Your task to perform on an android device: Open settings Image 0: 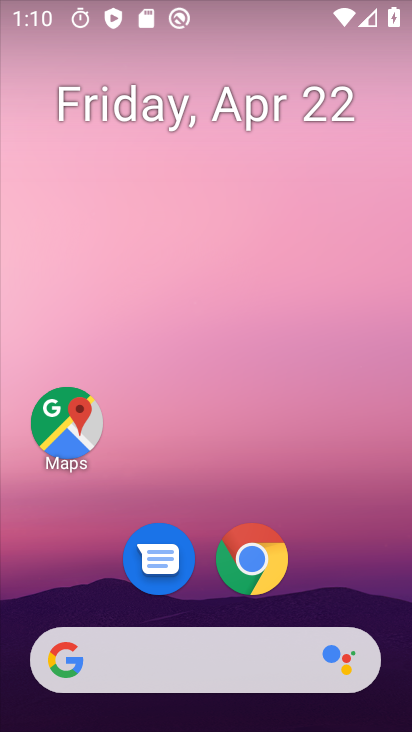
Step 0: drag from (343, 574) to (339, 231)
Your task to perform on an android device: Open settings Image 1: 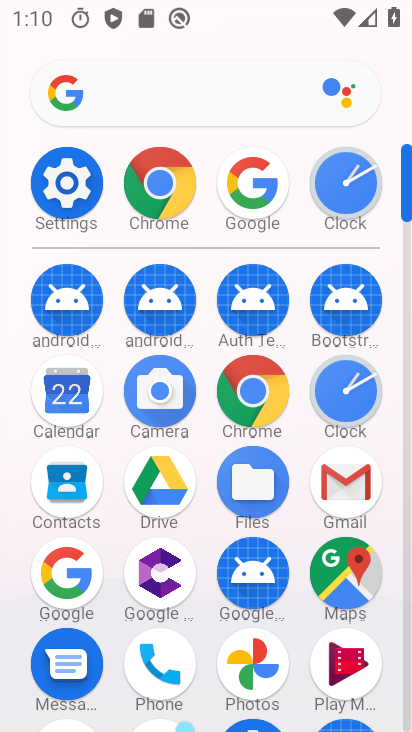
Step 1: click (78, 189)
Your task to perform on an android device: Open settings Image 2: 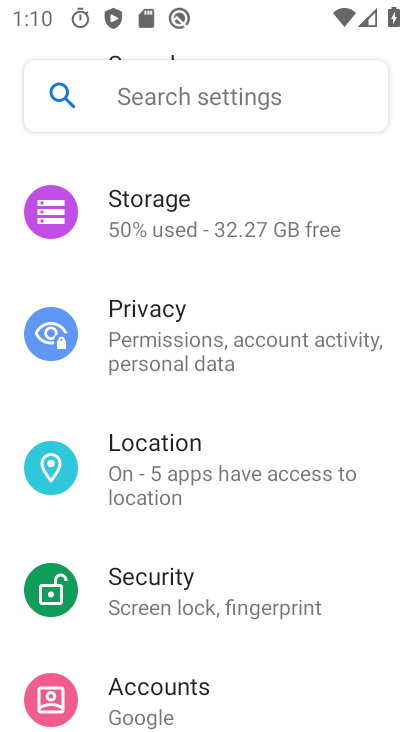
Step 2: task complete